Your task to perform on an android device: turn off priority inbox in the gmail app Image 0: 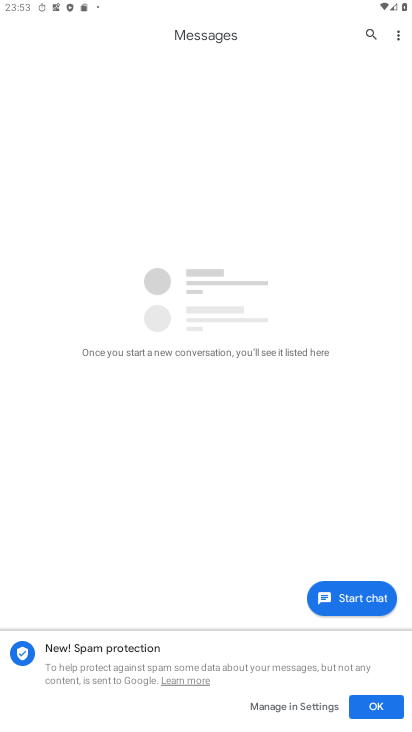
Step 0: press home button
Your task to perform on an android device: turn off priority inbox in the gmail app Image 1: 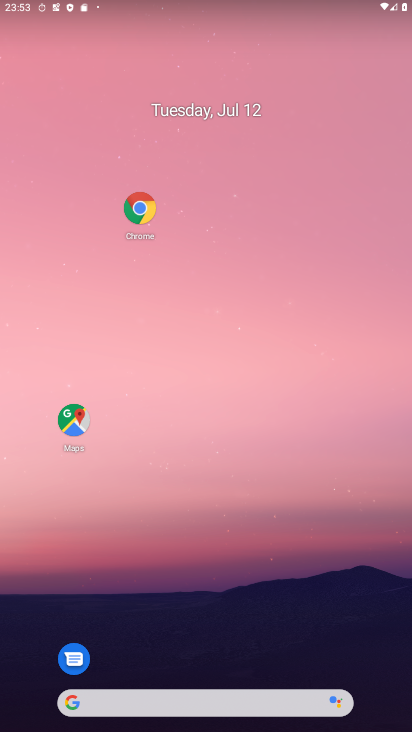
Step 1: drag from (327, 637) to (269, 5)
Your task to perform on an android device: turn off priority inbox in the gmail app Image 2: 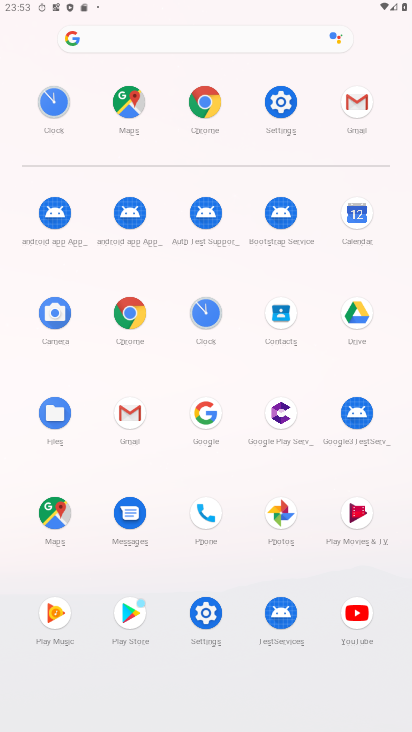
Step 2: click (130, 405)
Your task to perform on an android device: turn off priority inbox in the gmail app Image 3: 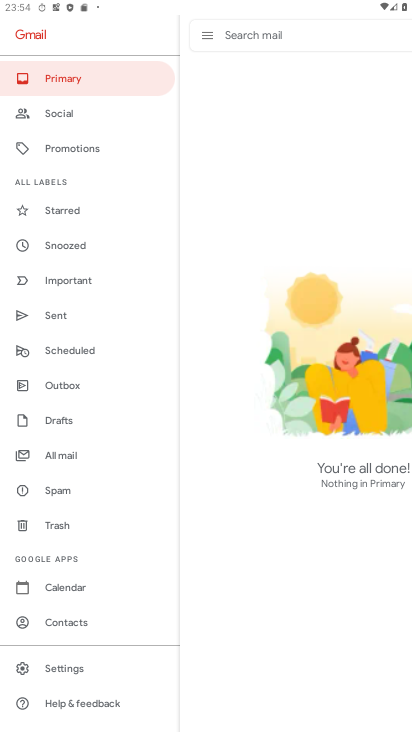
Step 3: click (78, 668)
Your task to perform on an android device: turn off priority inbox in the gmail app Image 4: 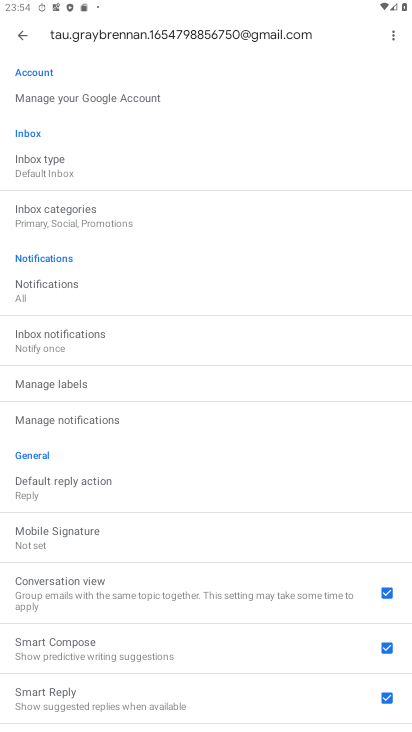
Step 4: click (63, 164)
Your task to perform on an android device: turn off priority inbox in the gmail app Image 5: 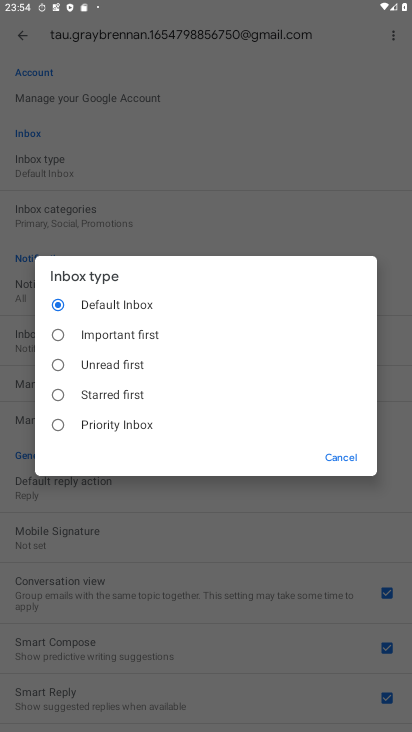
Step 5: task complete